Your task to perform on an android device: choose inbox layout in the gmail app Image 0: 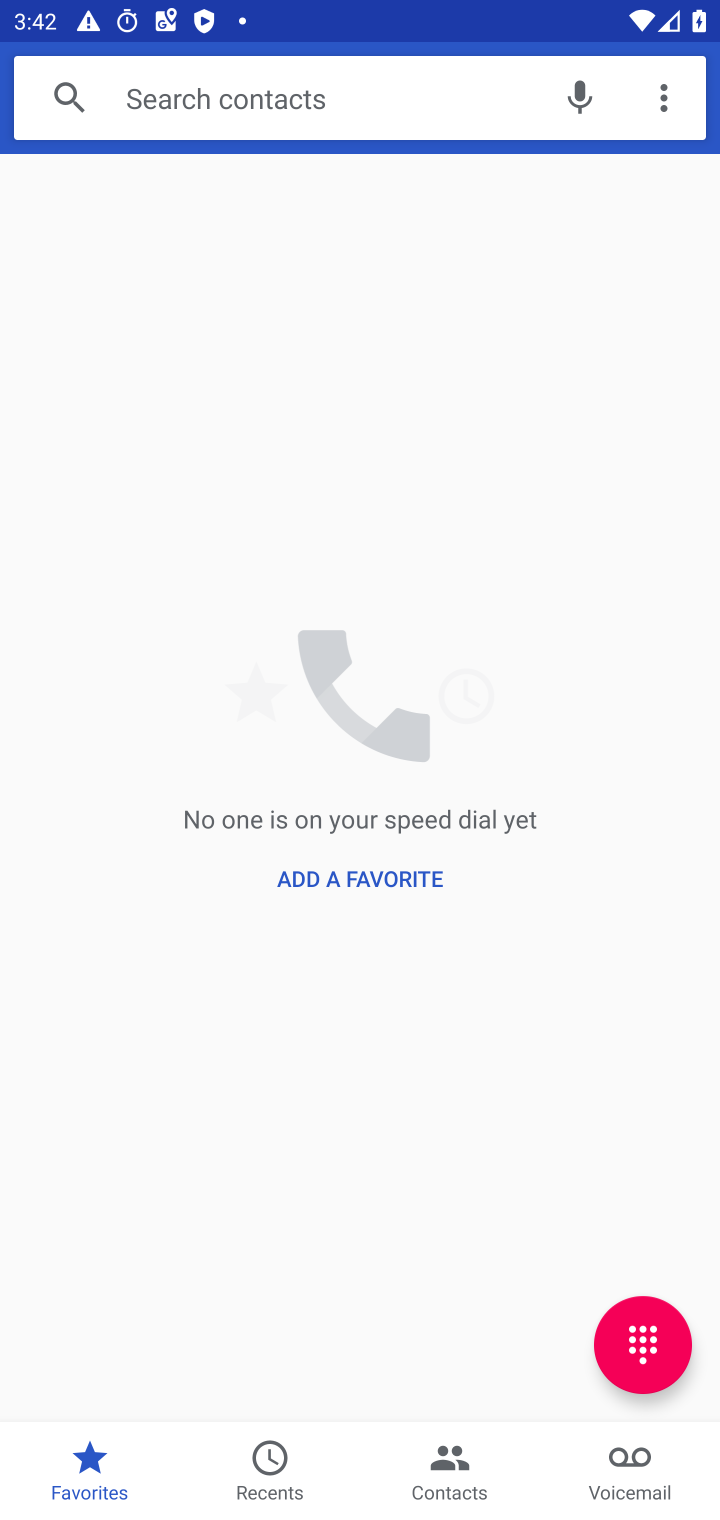
Step 0: press back button
Your task to perform on an android device: choose inbox layout in the gmail app Image 1: 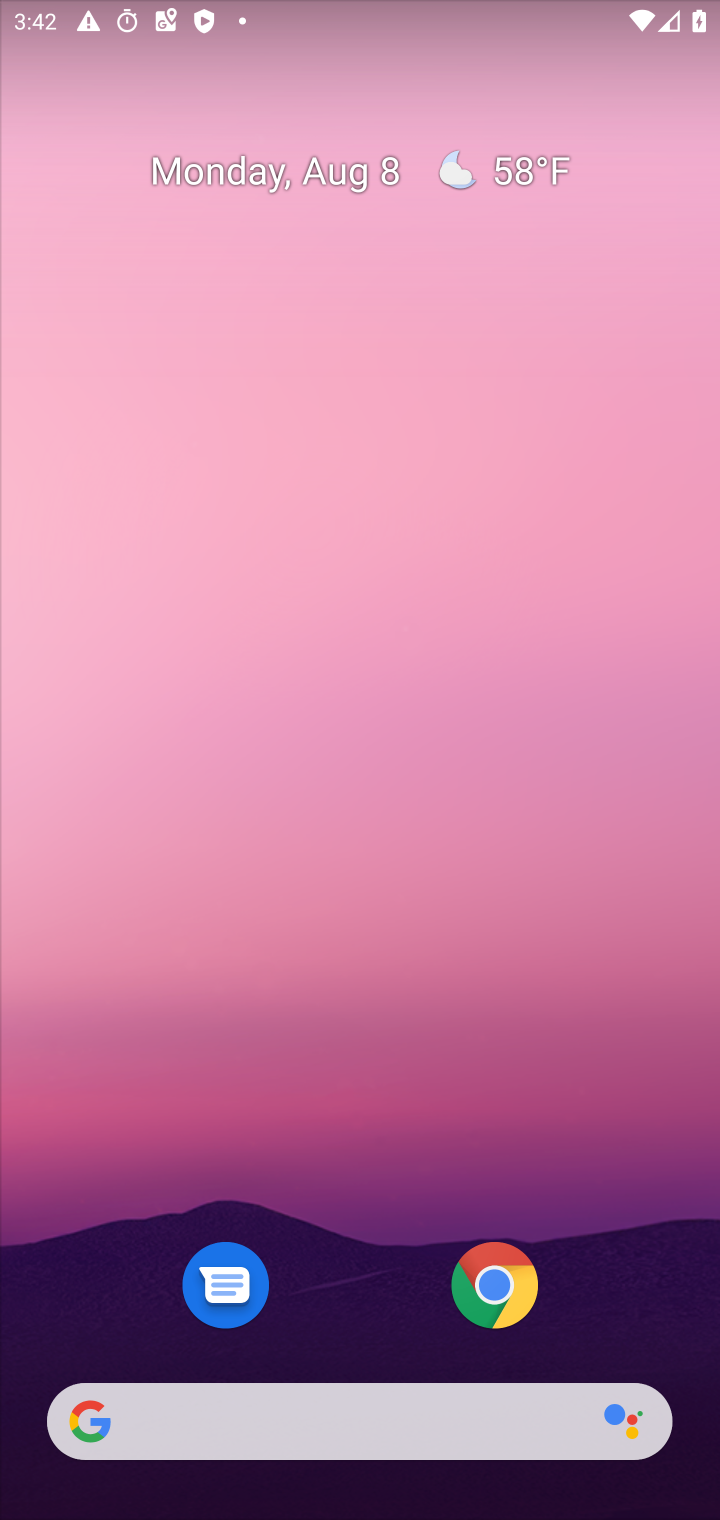
Step 1: drag from (350, 933) to (439, 226)
Your task to perform on an android device: choose inbox layout in the gmail app Image 2: 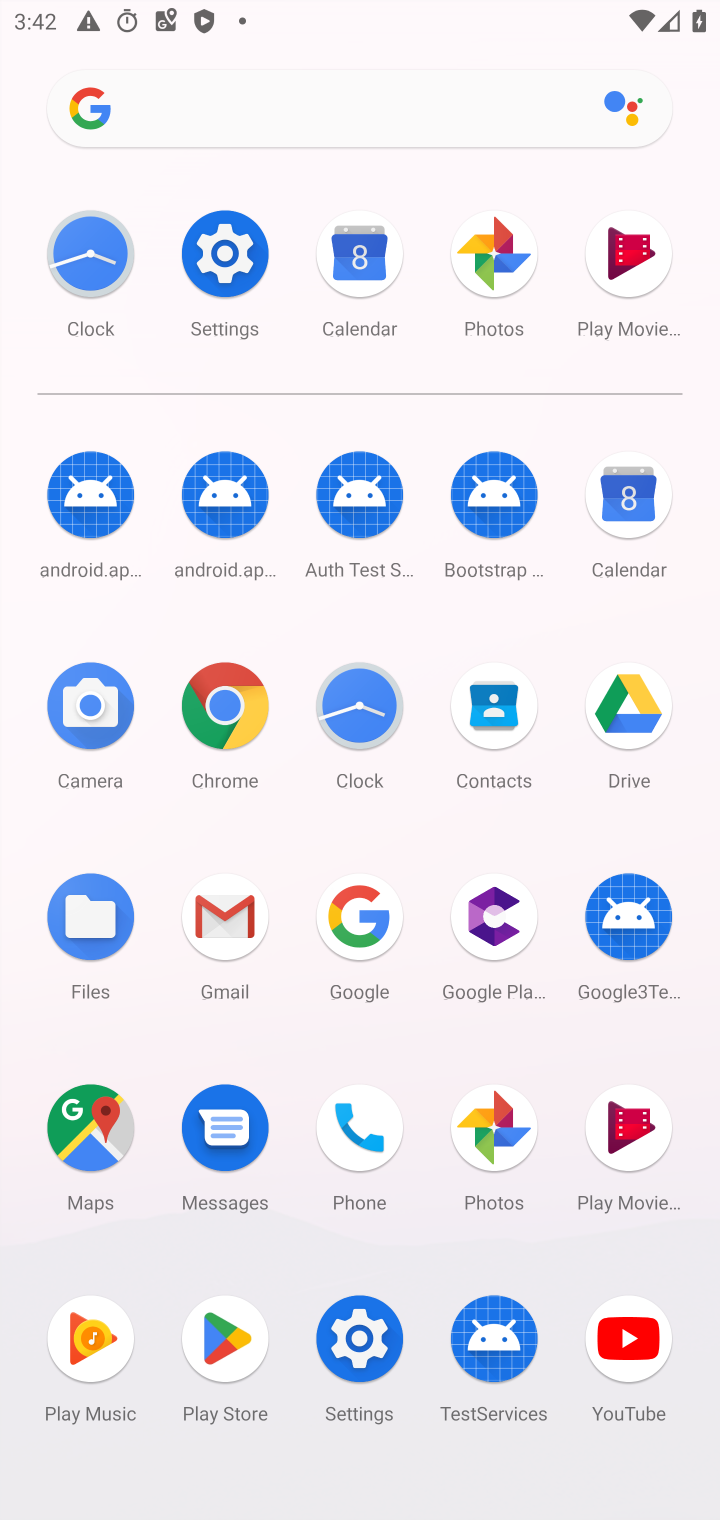
Step 2: click (217, 913)
Your task to perform on an android device: choose inbox layout in the gmail app Image 3: 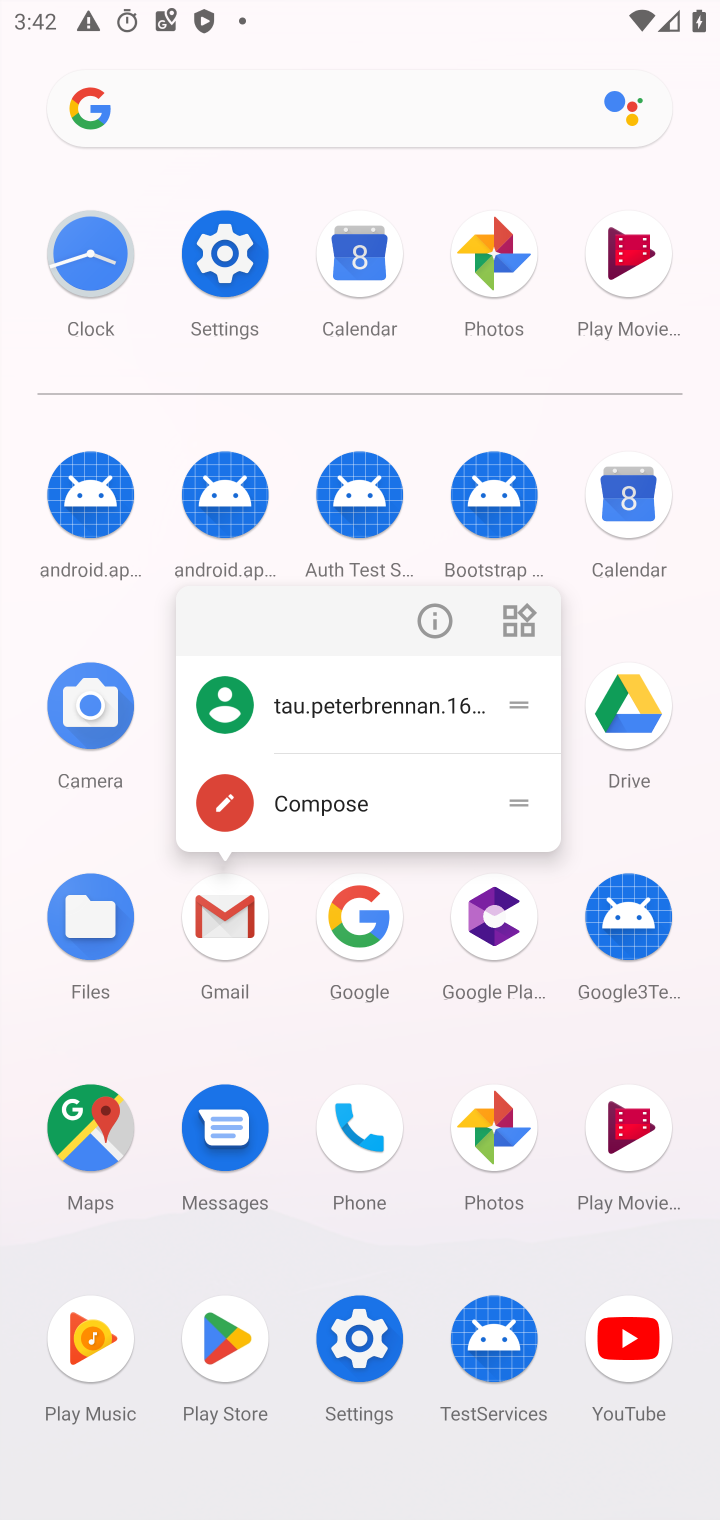
Step 3: click (225, 931)
Your task to perform on an android device: choose inbox layout in the gmail app Image 4: 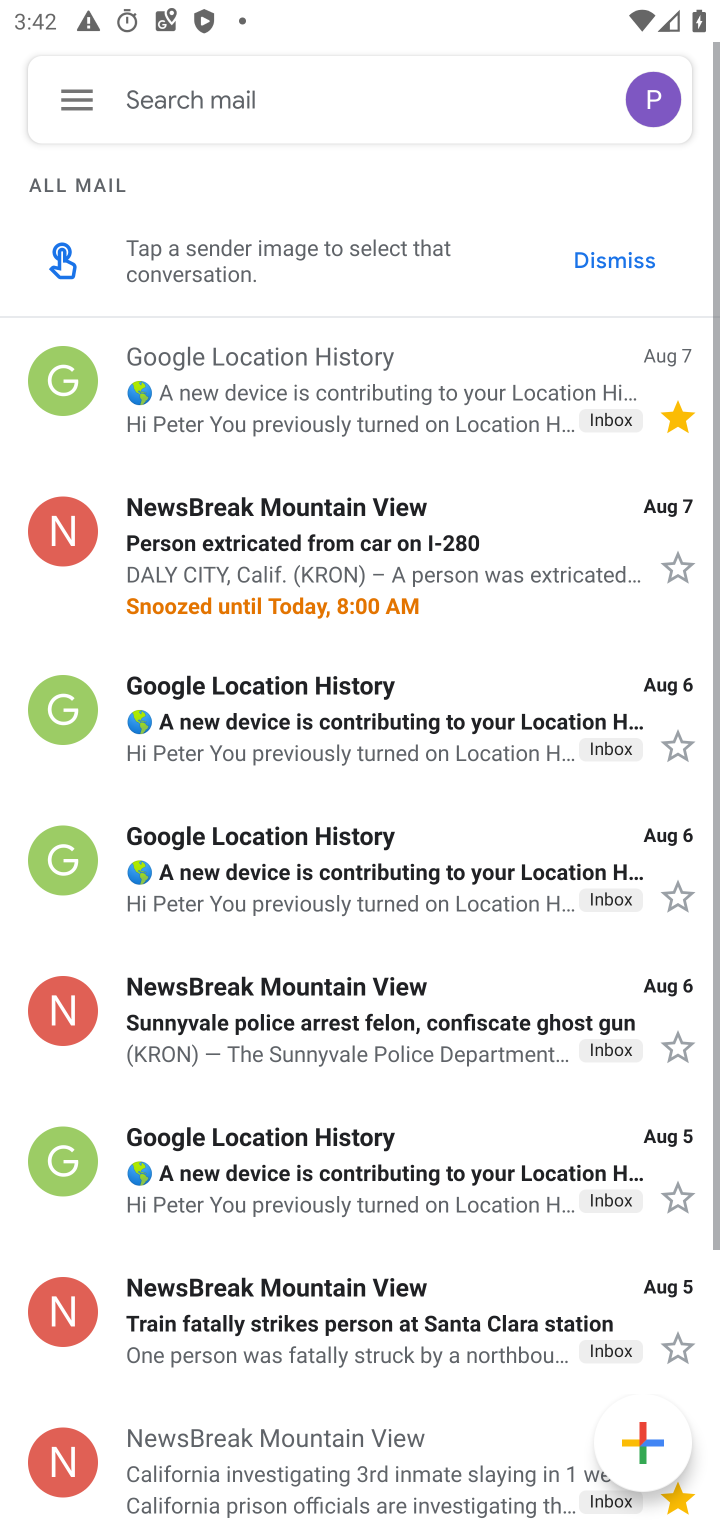
Step 4: click (74, 119)
Your task to perform on an android device: choose inbox layout in the gmail app Image 5: 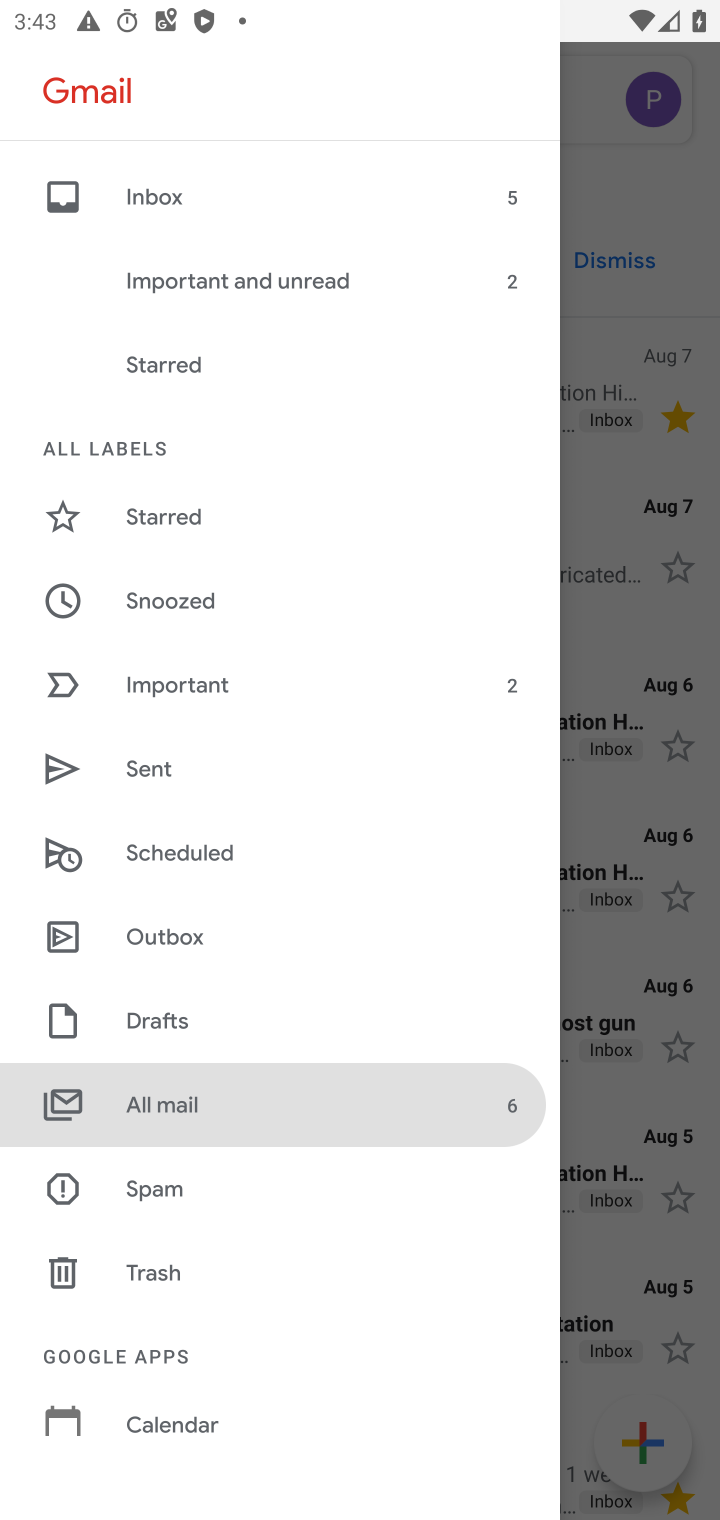
Step 5: drag from (218, 1394) to (334, 300)
Your task to perform on an android device: choose inbox layout in the gmail app Image 6: 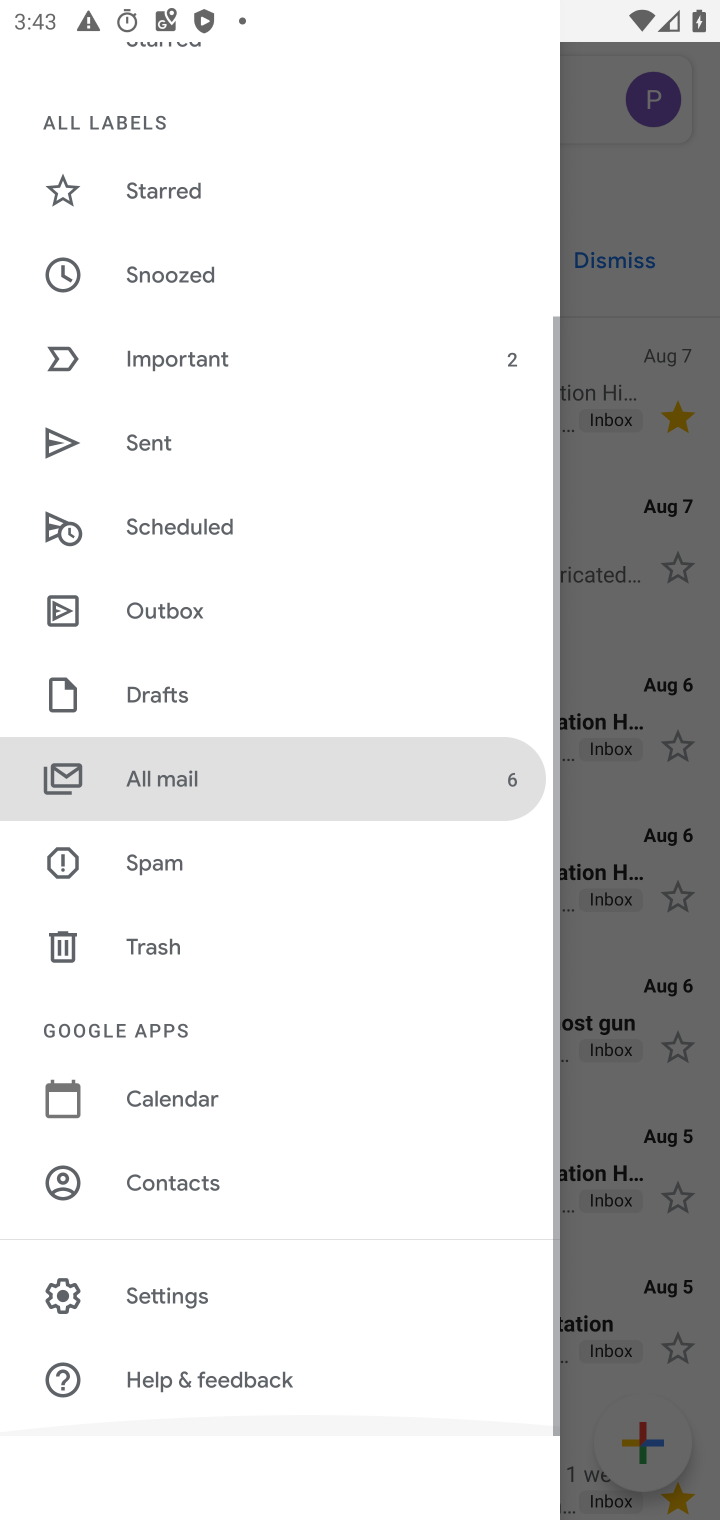
Step 6: click (136, 1299)
Your task to perform on an android device: choose inbox layout in the gmail app Image 7: 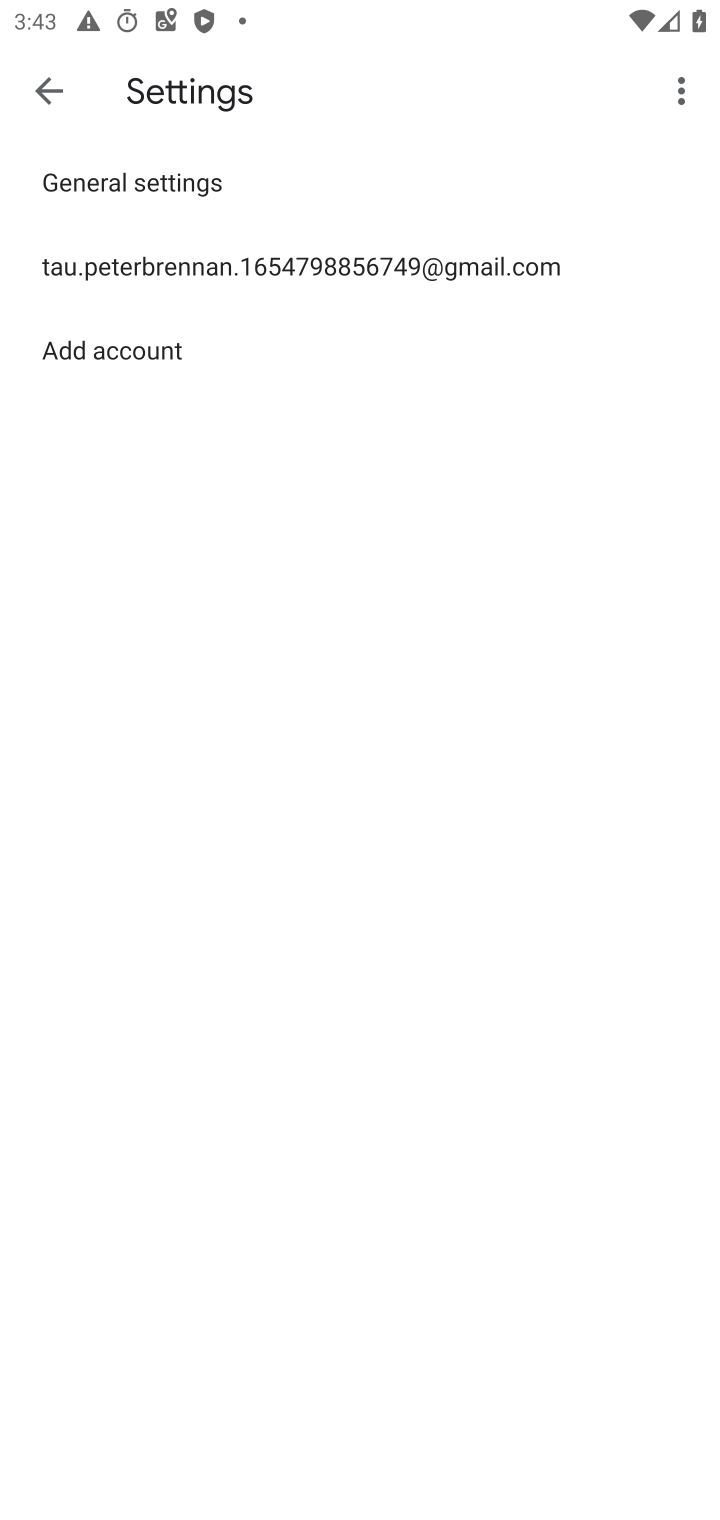
Step 7: click (164, 270)
Your task to perform on an android device: choose inbox layout in the gmail app Image 8: 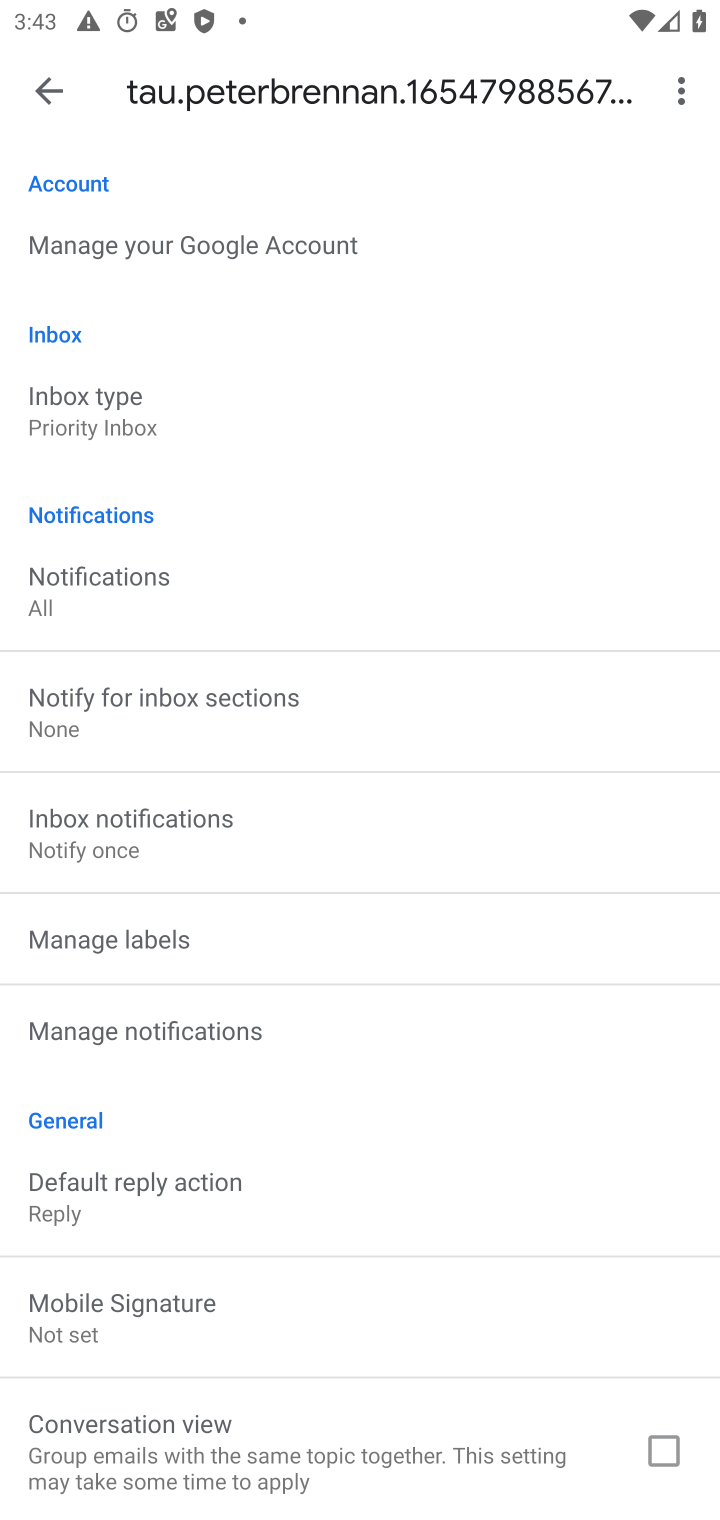
Step 8: click (207, 422)
Your task to perform on an android device: choose inbox layout in the gmail app Image 9: 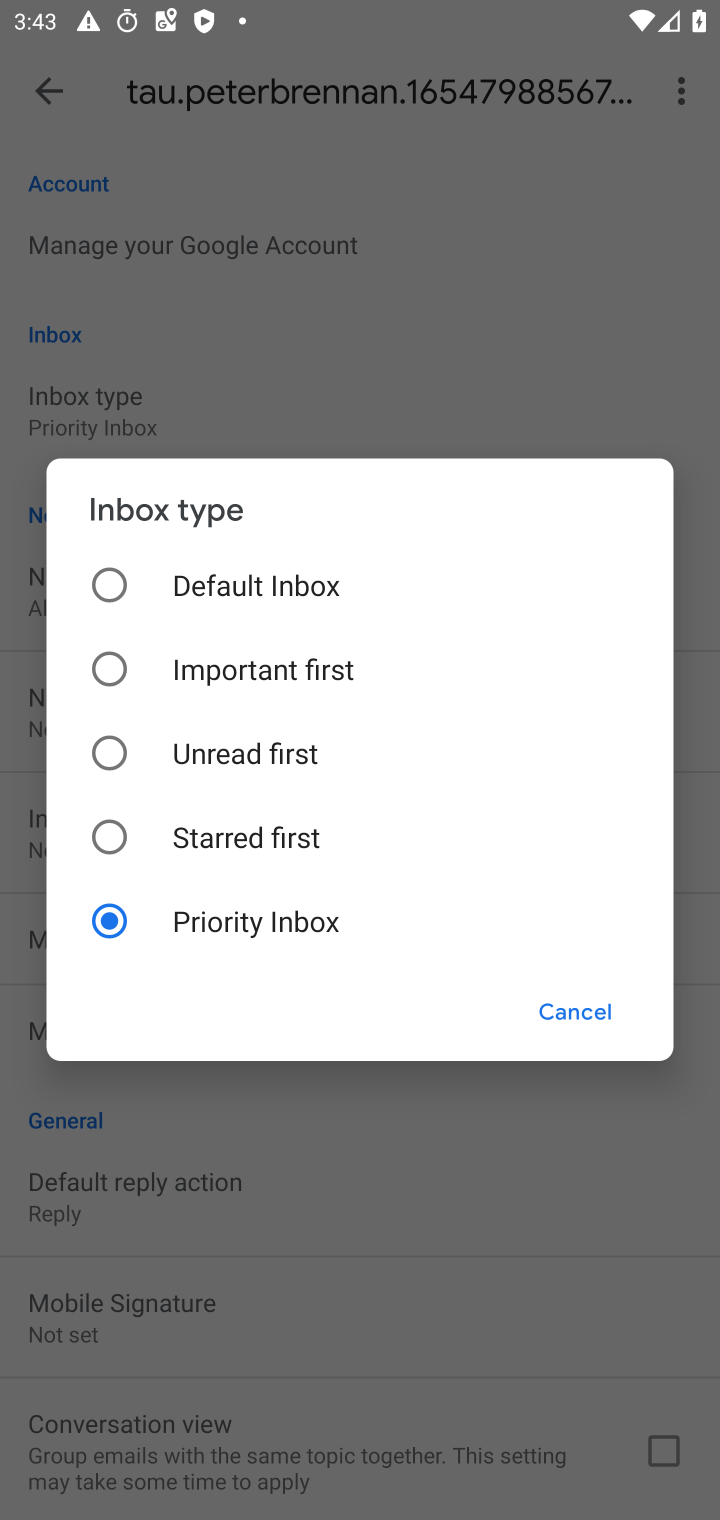
Step 9: click (122, 569)
Your task to perform on an android device: choose inbox layout in the gmail app Image 10: 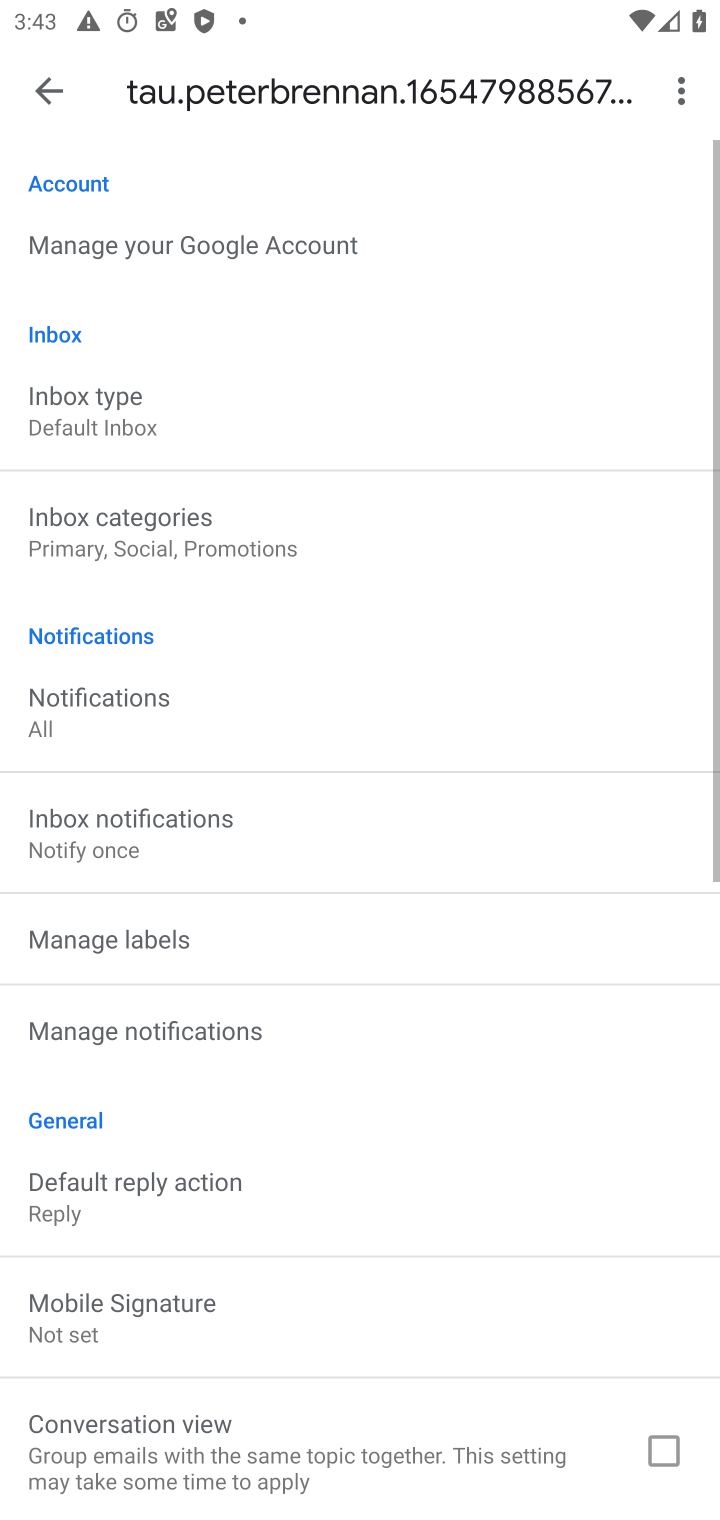
Step 10: task complete